Your task to perform on an android device: Open accessibility settings Image 0: 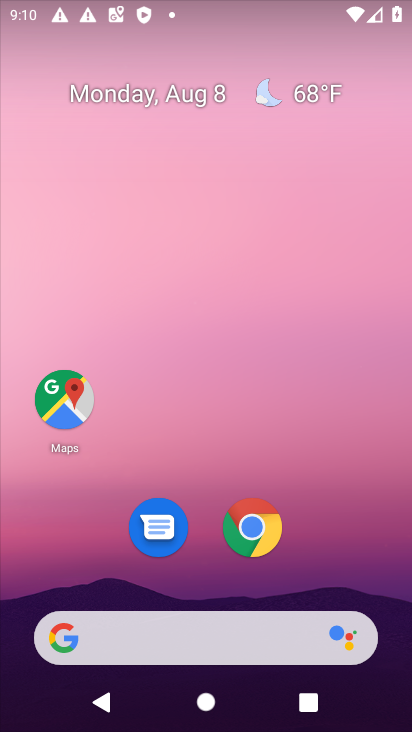
Step 0: drag from (362, 434) to (342, 223)
Your task to perform on an android device: Open accessibility settings Image 1: 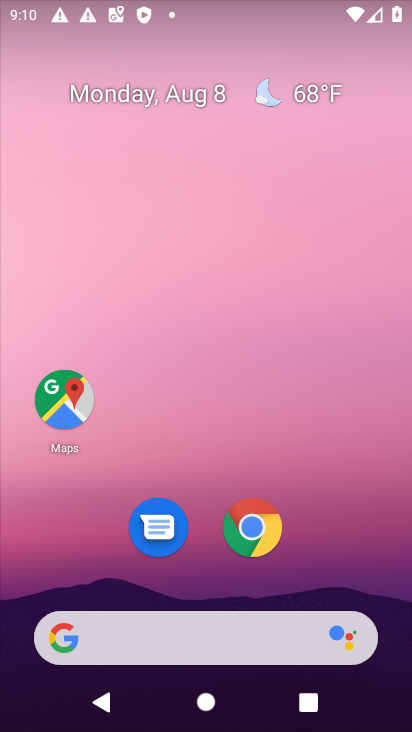
Step 1: drag from (395, 700) to (281, 82)
Your task to perform on an android device: Open accessibility settings Image 2: 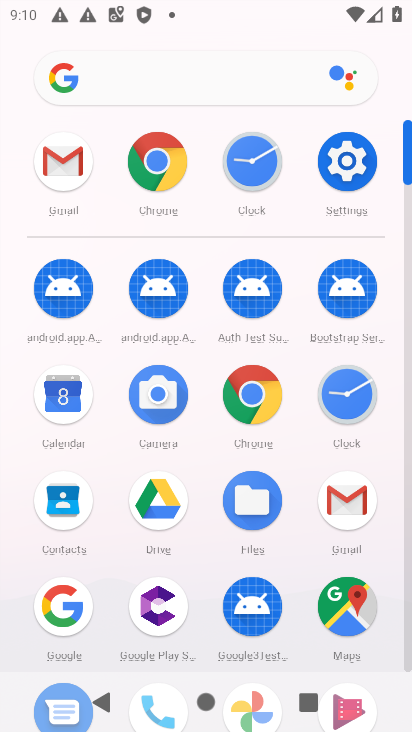
Step 2: click (343, 167)
Your task to perform on an android device: Open accessibility settings Image 3: 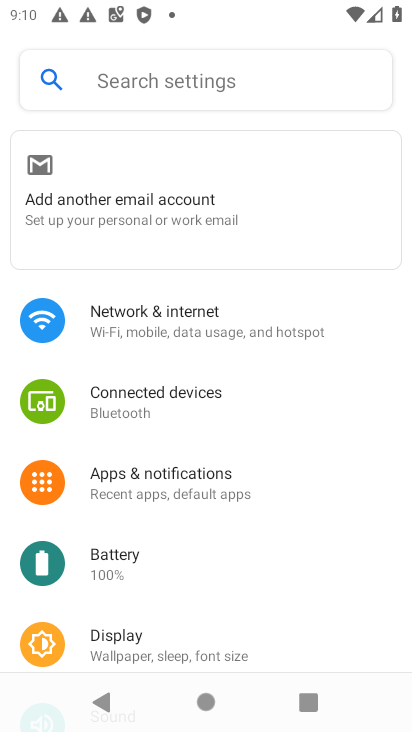
Step 3: drag from (278, 578) to (281, 190)
Your task to perform on an android device: Open accessibility settings Image 4: 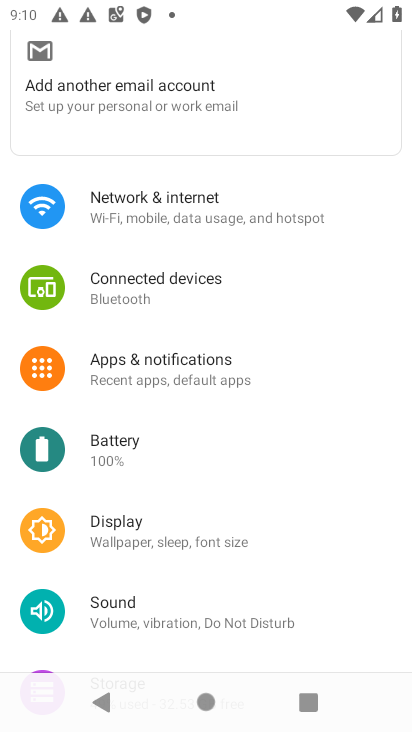
Step 4: drag from (298, 570) to (279, 298)
Your task to perform on an android device: Open accessibility settings Image 5: 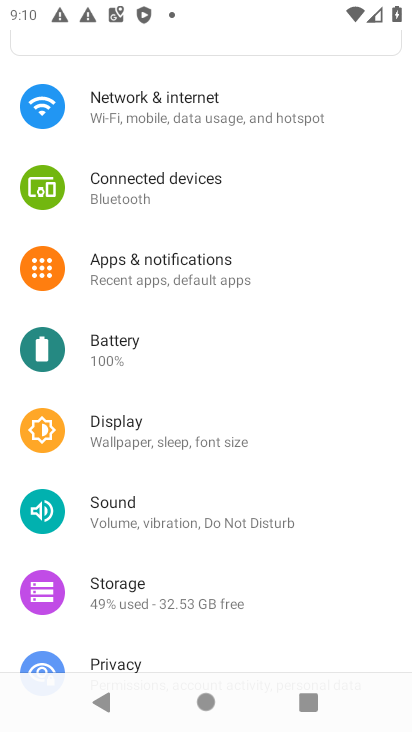
Step 5: drag from (317, 563) to (309, 290)
Your task to perform on an android device: Open accessibility settings Image 6: 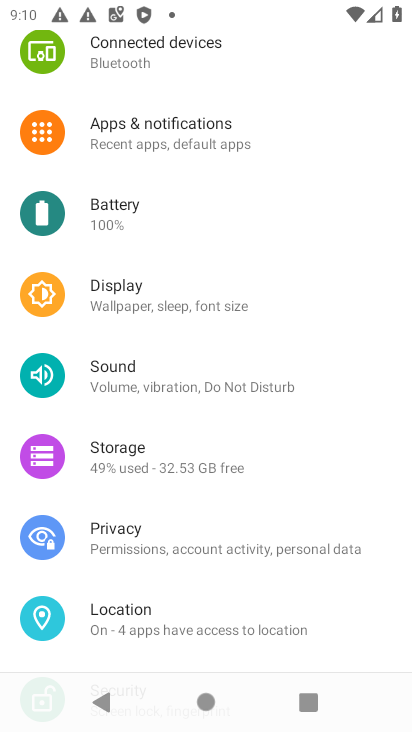
Step 6: drag from (328, 615) to (306, 205)
Your task to perform on an android device: Open accessibility settings Image 7: 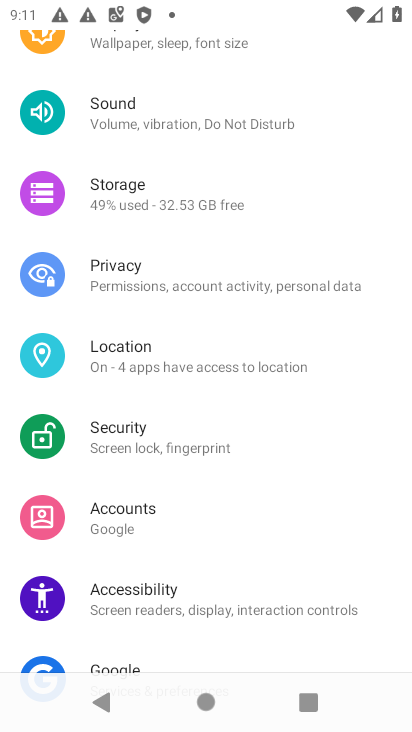
Step 7: click (128, 587)
Your task to perform on an android device: Open accessibility settings Image 8: 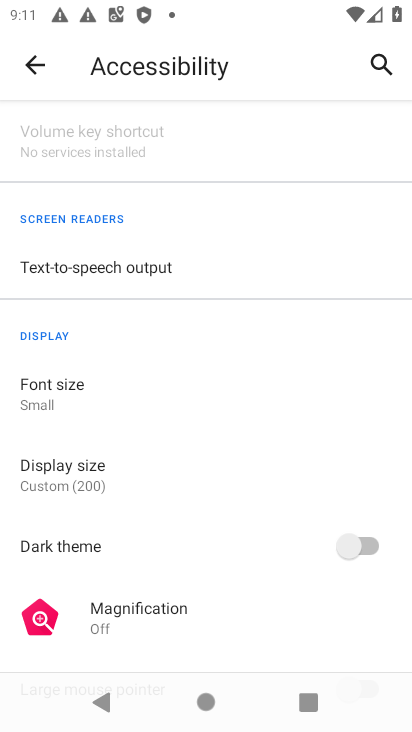
Step 8: task complete